Your task to perform on an android device: see creations saved in the google photos Image 0: 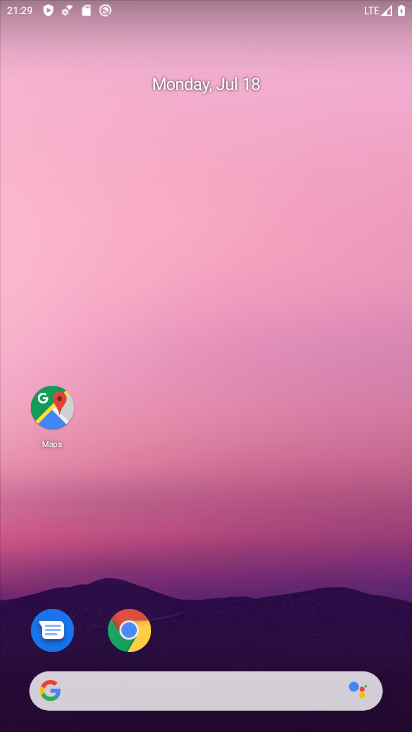
Step 0: drag from (243, 656) to (248, 278)
Your task to perform on an android device: see creations saved in the google photos Image 1: 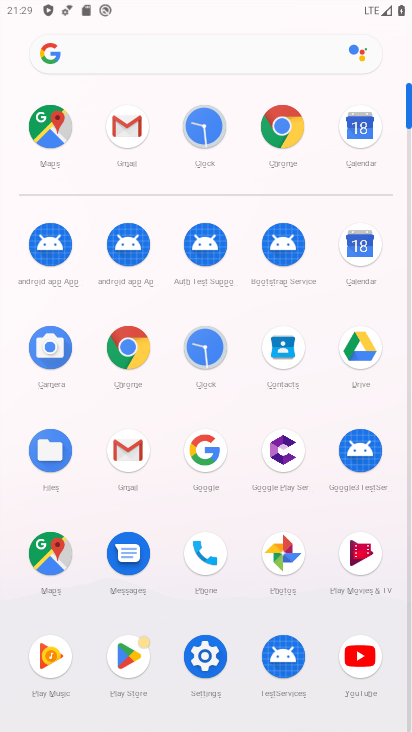
Step 1: click (296, 555)
Your task to perform on an android device: see creations saved in the google photos Image 2: 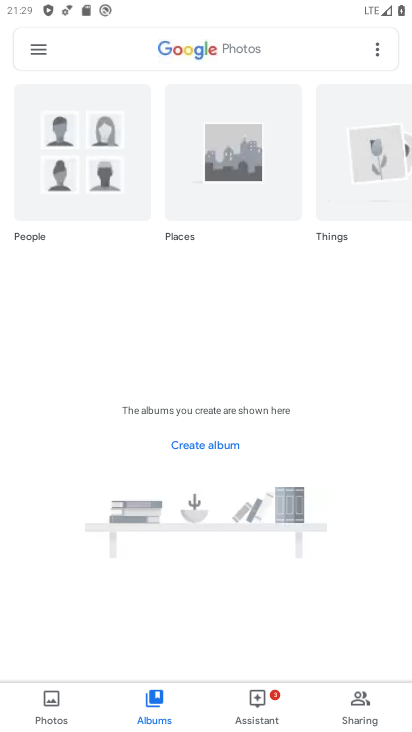
Step 2: click (57, 704)
Your task to perform on an android device: see creations saved in the google photos Image 3: 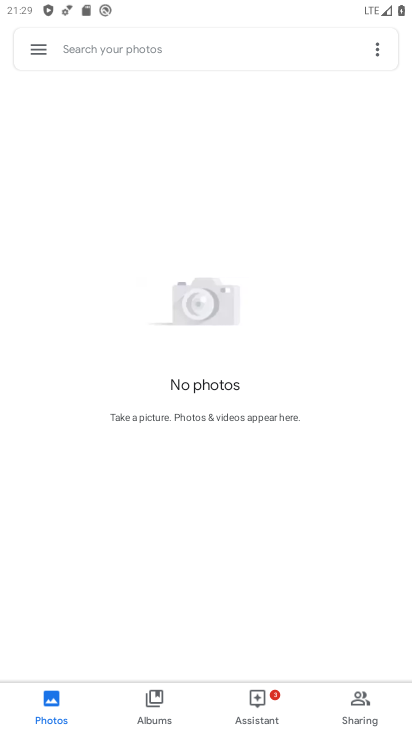
Step 3: click (157, 704)
Your task to perform on an android device: see creations saved in the google photos Image 4: 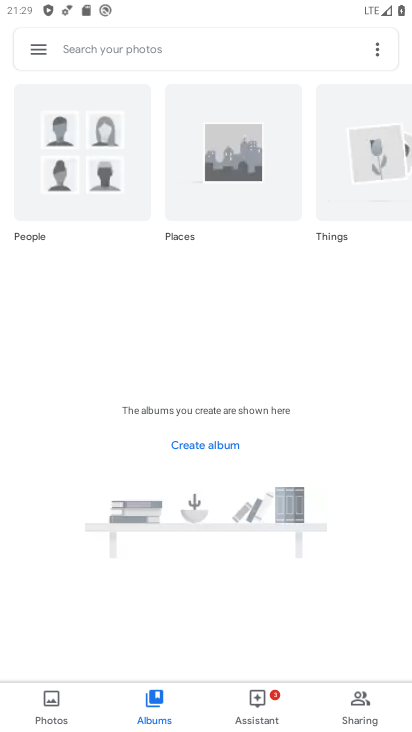
Step 4: task complete